Your task to perform on an android device: Open Google Chrome and click the shortcut for Amazon.com Image 0: 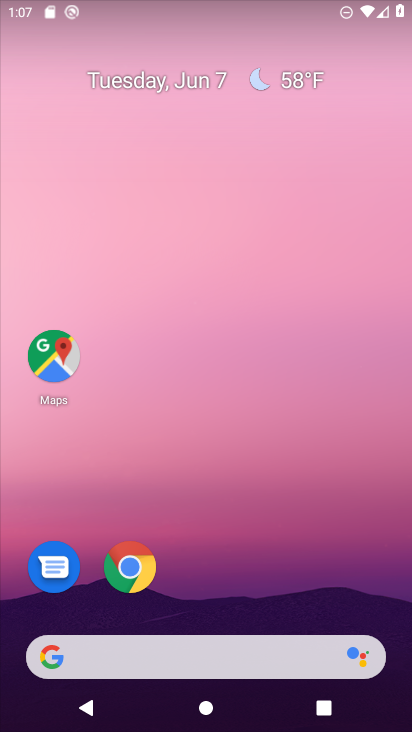
Step 0: drag from (380, 666) to (361, 82)
Your task to perform on an android device: Open Google Chrome and click the shortcut for Amazon.com Image 1: 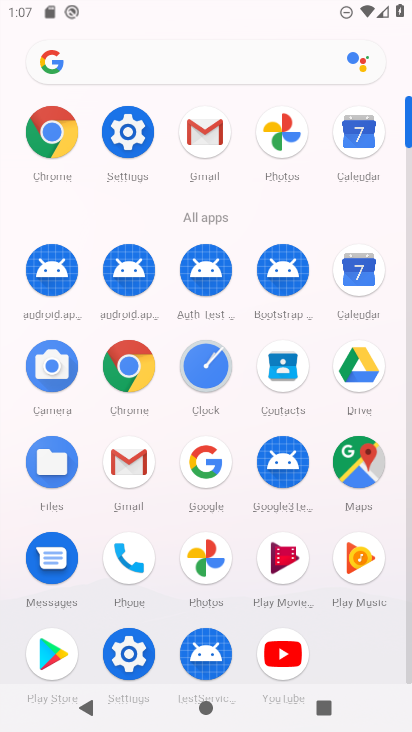
Step 1: click (132, 364)
Your task to perform on an android device: Open Google Chrome and click the shortcut for Amazon.com Image 2: 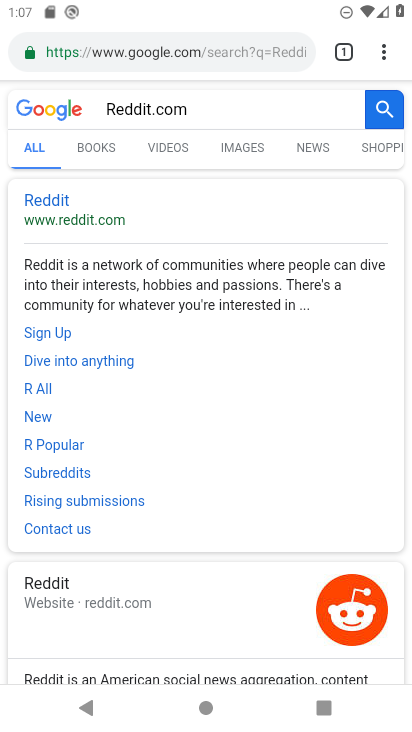
Step 2: click (377, 53)
Your task to perform on an android device: Open Google Chrome and click the shortcut for Amazon.com Image 3: 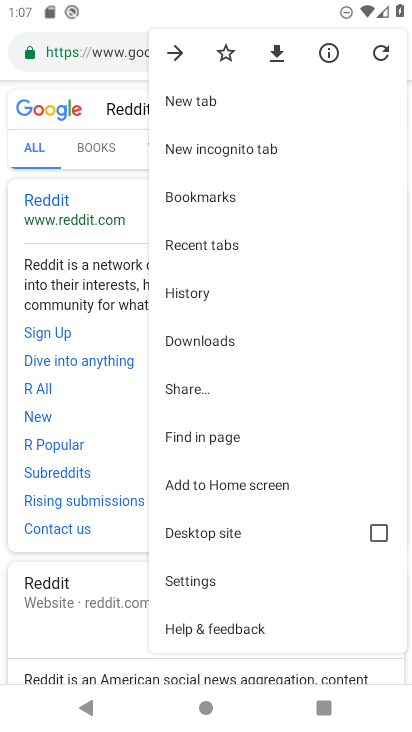
Step 3: click (191, 101)
Your task to perform on an android device: Open Google Chrome and click the shortcut for Amazon.com Image 4: 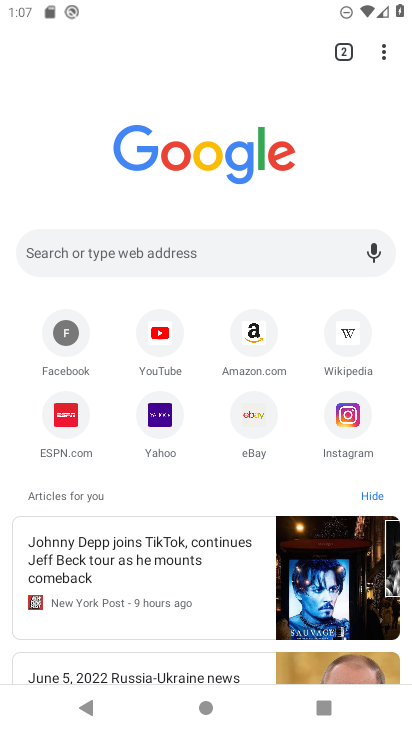
Step 4: click (251, 352)
Your task to perform on an android device: Open Google Chrome and click the shortcut for Amazon.com Image 5: 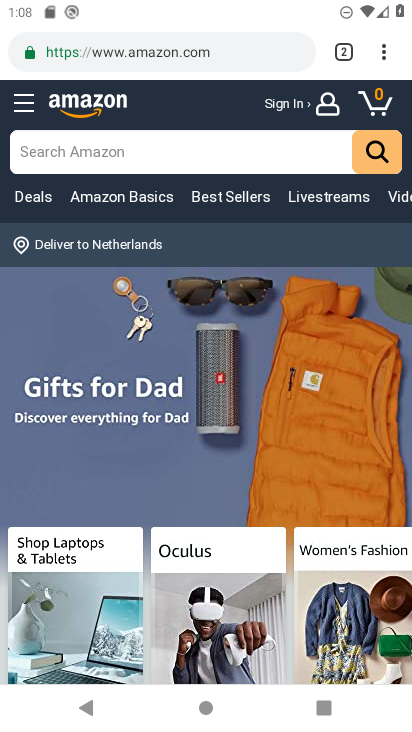
Step 5: task complete